Your task to perform on an android device: change the clock display to show seconds Image 0: 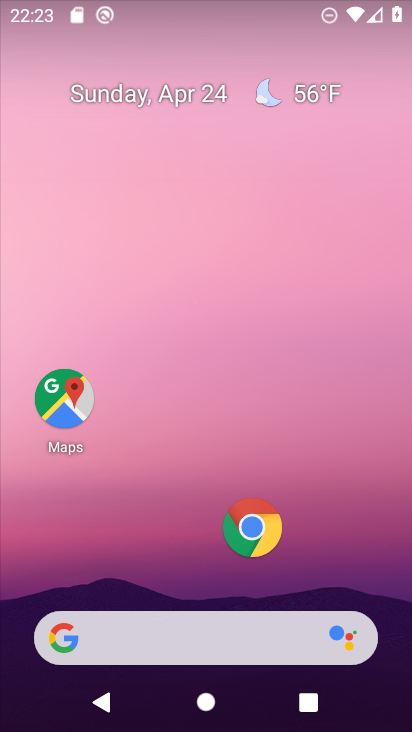
Step 0: drag from (168, 553) to (371, 0)
Your task to perform on an android device: change the clock display to show seconds Image 1: 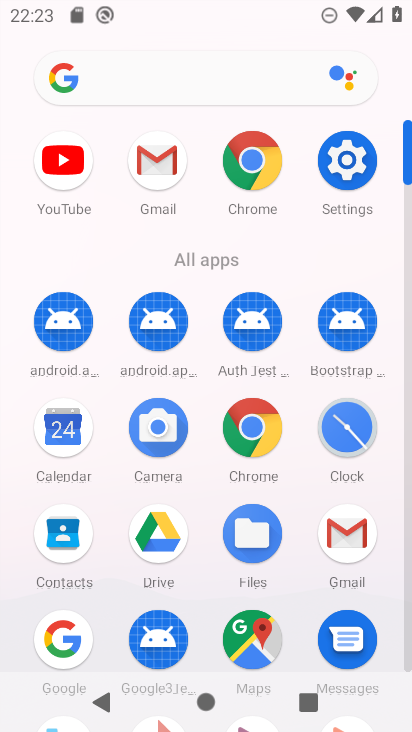
Step 1: click (329, 424)
Your task to perform on an android device: change the clock display to show seconds Image 2: 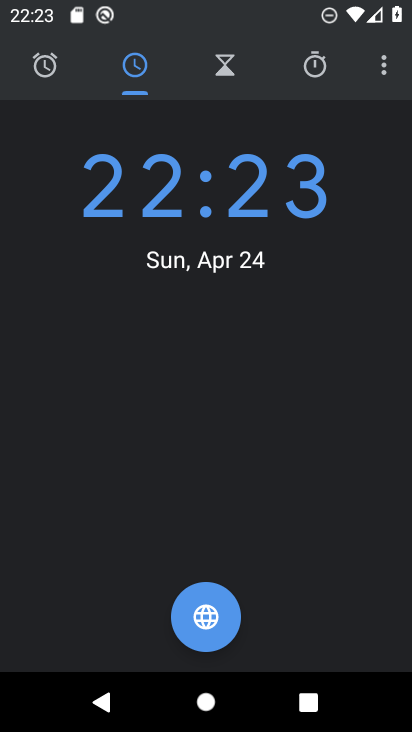
Step 2: click (380, 72)
Your task to perform on an android device: change the clock display to show seconds Image 3: 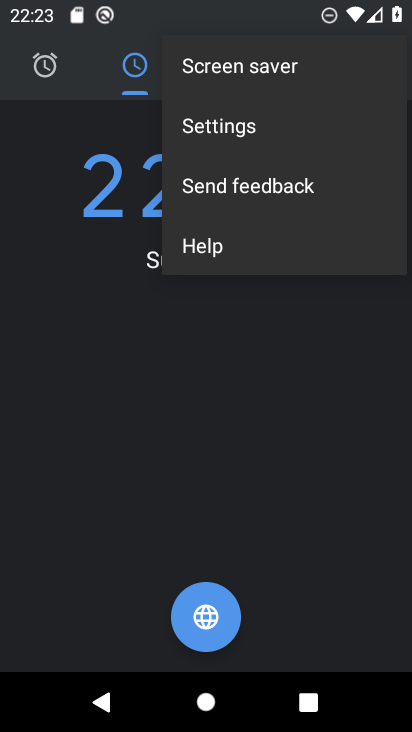
Step 3: click (218, 126)
Your task to perform on an android device: change the clock display to show seconds Image 4: 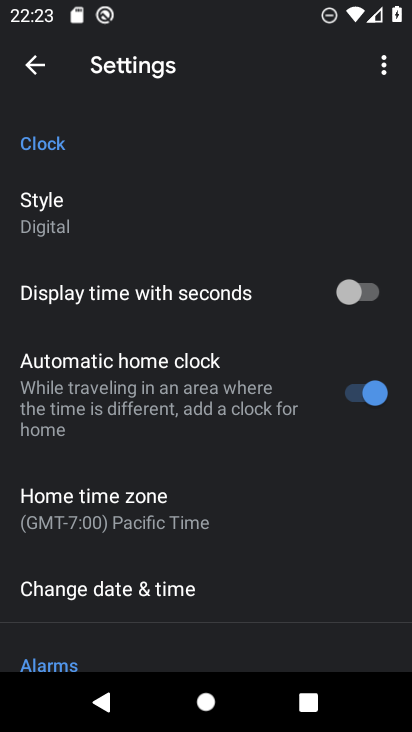
Step 4: click (90, 218)
Your task to perform on an android device: change the clock display to show seconds Image 5: 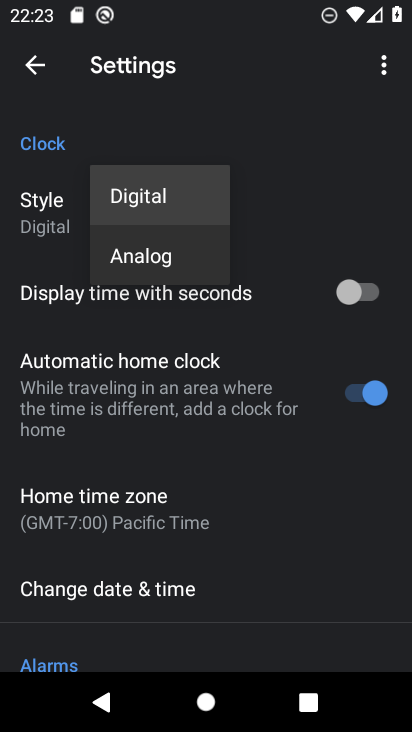
Step 5: click (161, 254)
Your task to perform on an android device: change the clock display to show seconds Image 6: 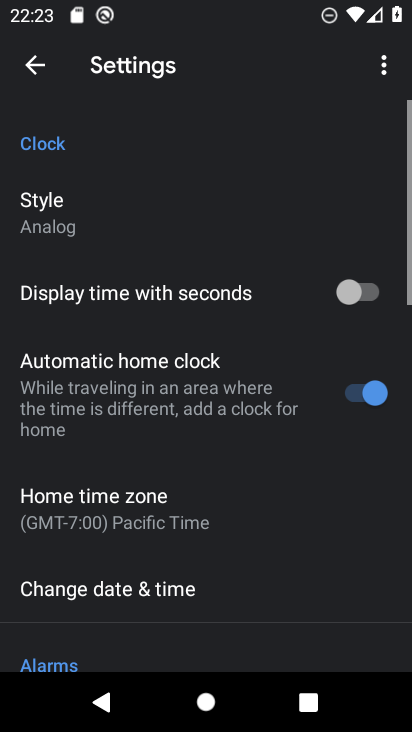
Step 6: click (372, 293)
Your task to perform on an android device: change the clock display to show seconds Image 7: 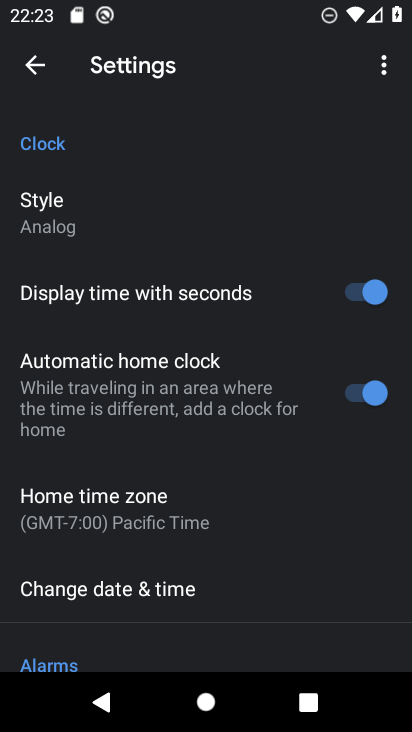
Step 7: task complete